Your task to perform on an android device: Open battery settings Image 0: 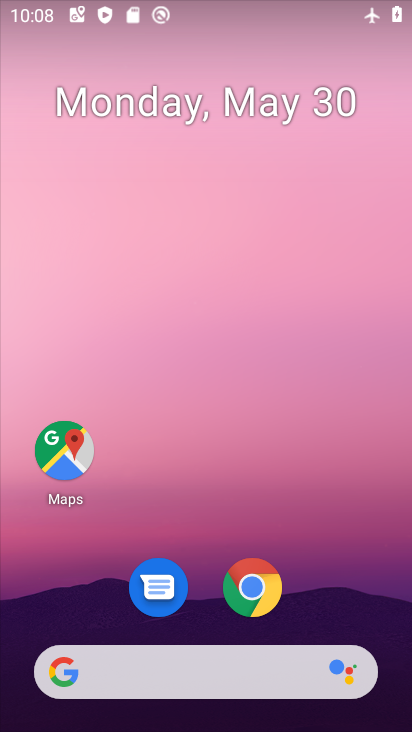
Step 0: drag from (337, 589) to (262, 31)
Your task to perform on an android device: Open battery settings Image 1: 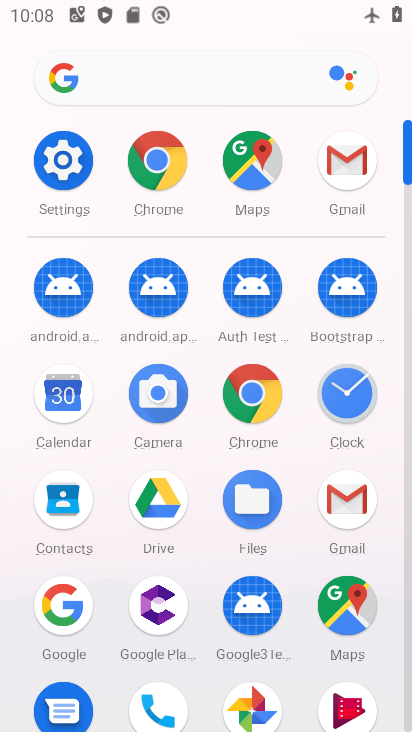
Step 1: click (62, 158)
Your task to perform on an android device: Open battery settings Image 2: 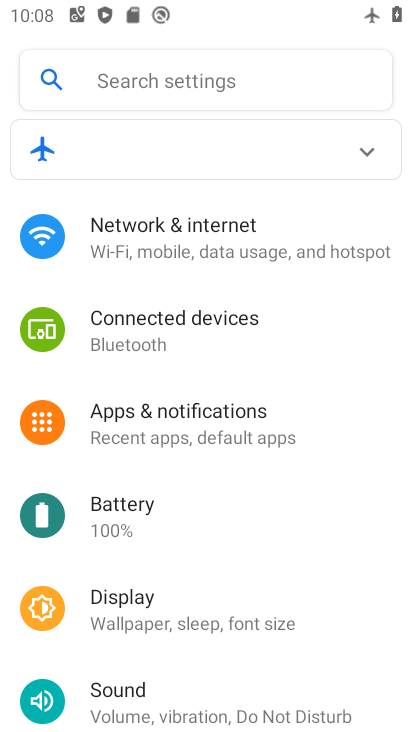
Step 2: click (141, 520)
Your task to perform on an android device: Open battery settings Image 3: 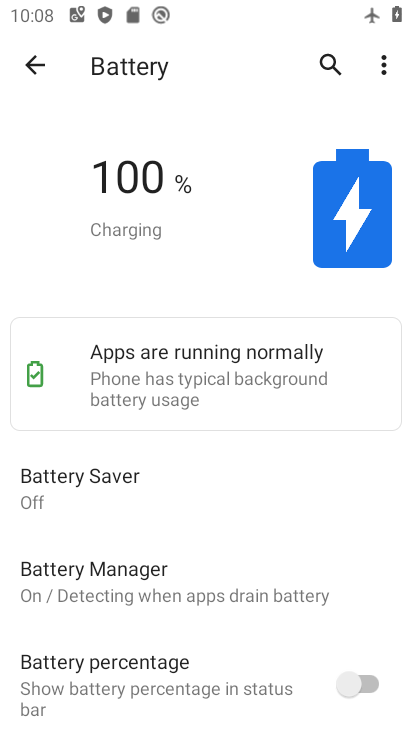
Step 3: task complete